Your task to perform on an android device: set an alarm Image 0: 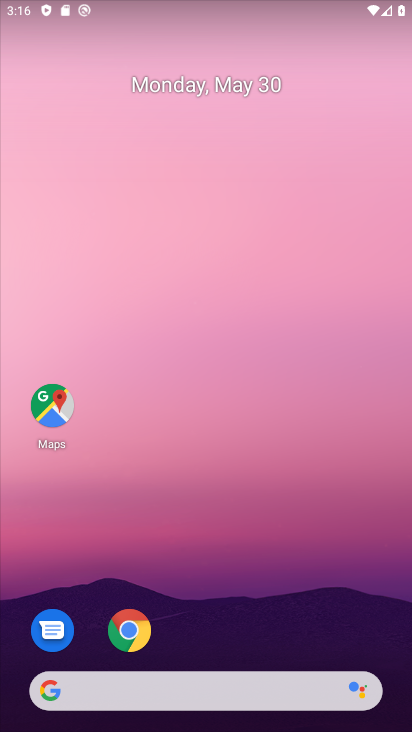
Step 0: drag from (304, 569) to (272, 228)
Your task to perform on an android device: set an alarm Image 1: 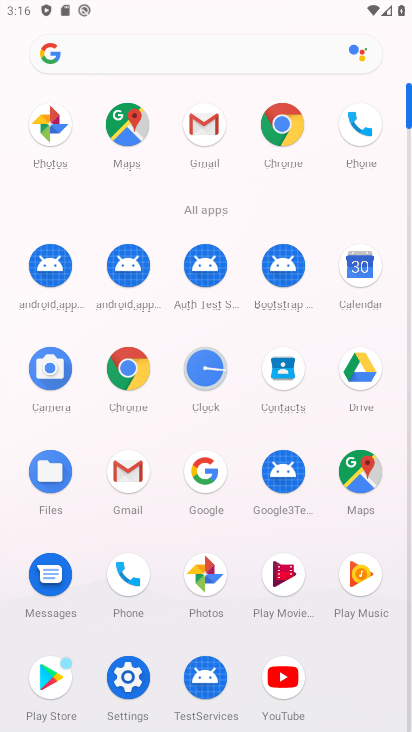
Step 1: click (205, 376)
Your task to perform on an android device: set an alarm Image 2: 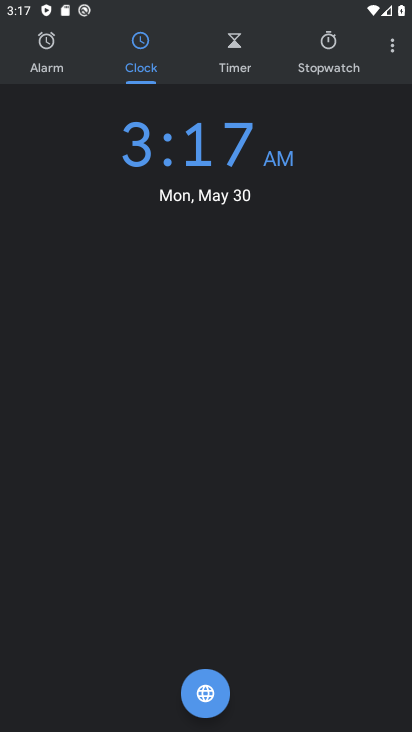
Step 2: click (53, 40)
Your task to perform on an android device: set an alarm Image 3: 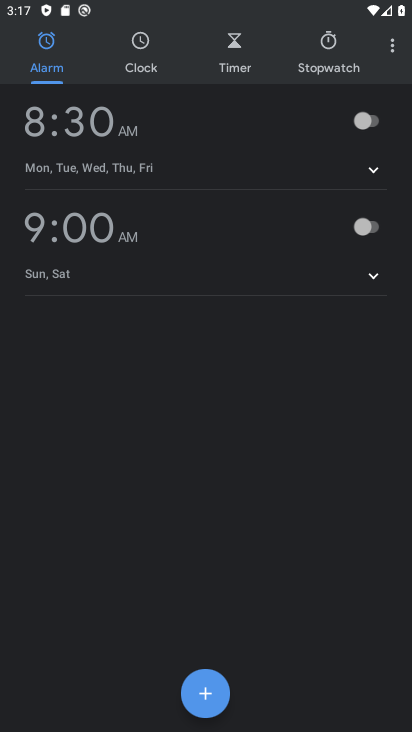
Step 3: click (202, 686)
Your task to perform on an android device: set an alarm Image 4: 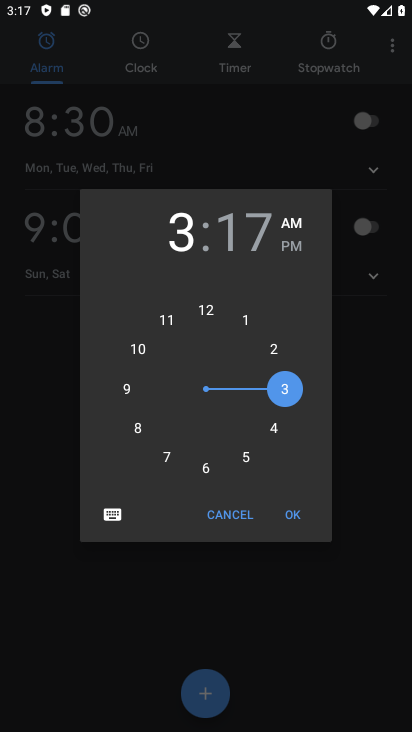
Step 4: click (224, 477)
Your task to perform on an android device: set an alarm Image 5: 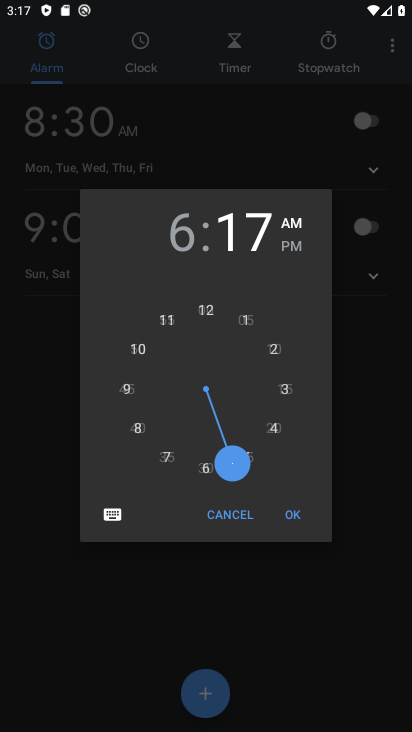
Step 5: click (294, 507)
Your task to perform on an android device: set an alarm Image 6: 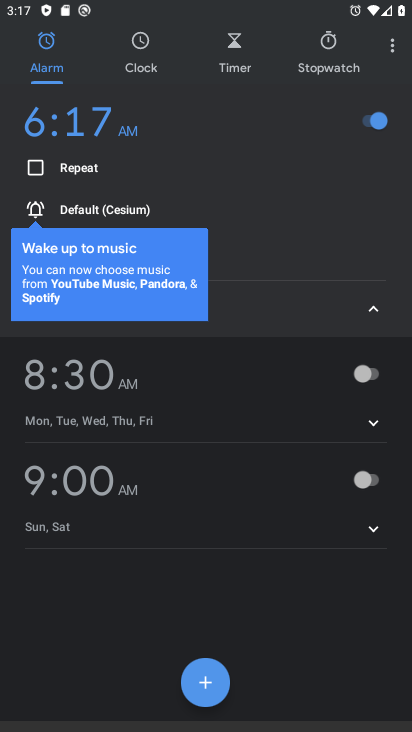
Step 6: task complete